Your task to perform on an android device: Open the web browser Image 0: 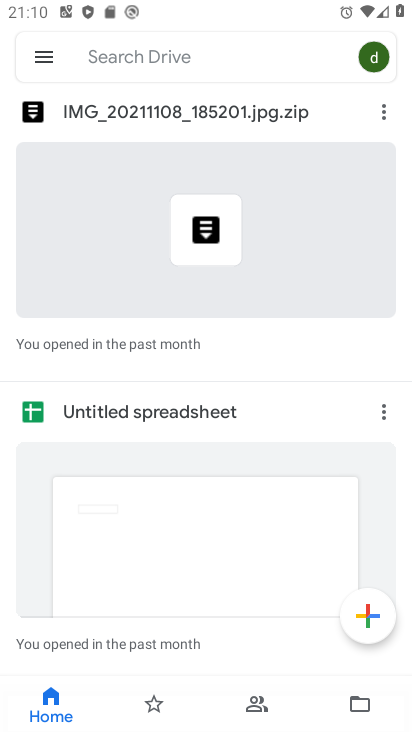
Step 0: press home button
Your task to perform on an android device: Open the web browser Image 1: 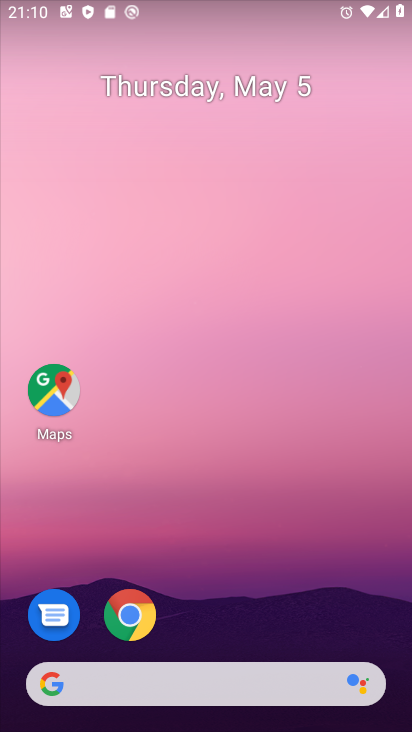
Step 1: drag from (189, 640) to (211, 207)
Your task to perform on an android device: Open the web browser Image 2: 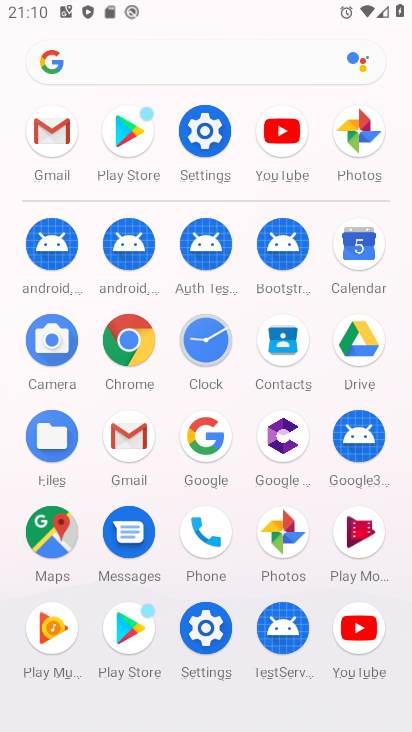
Step 2: click (125, 344)
Your task to perform on an android device: Open the web browser Image 3: 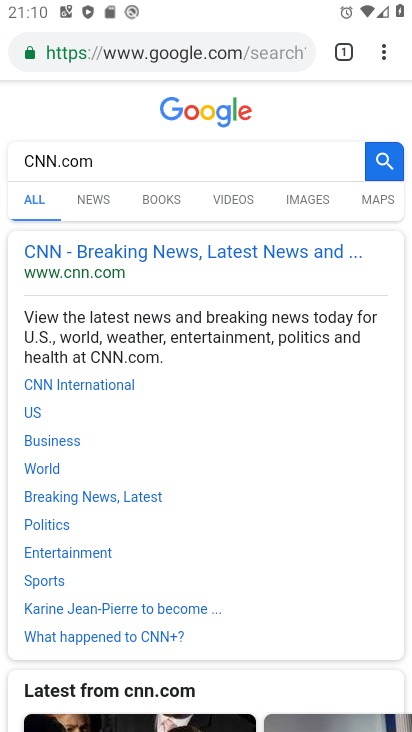
Step 3: task complete